Your task to perform on an android device: refresh tabs in the chrome app Image 0: 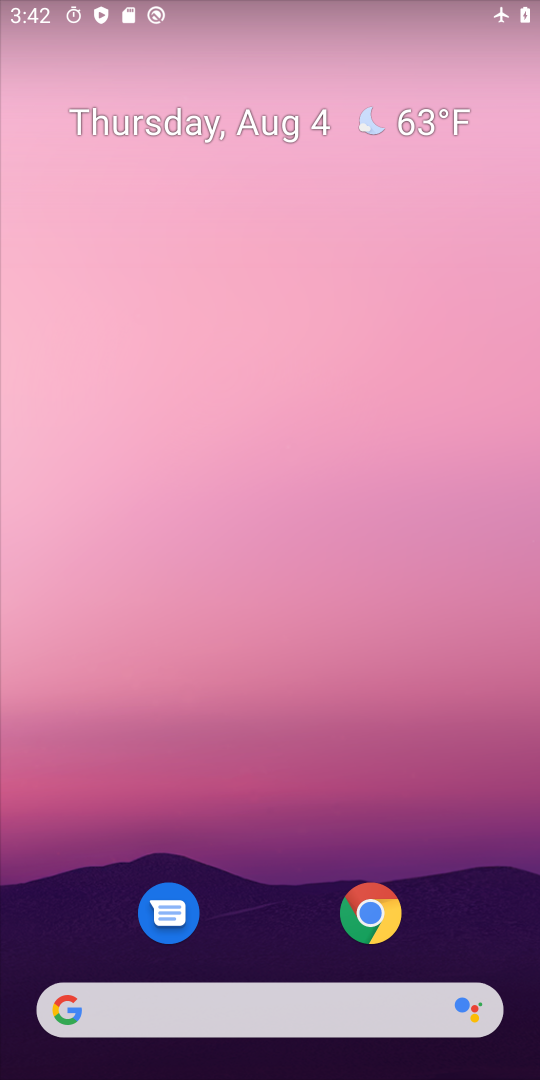
Step 0: drag from (258, 1002) to (267, 140)
Your task to perform on an android device: refresh tabs in the chrome app Image 1: 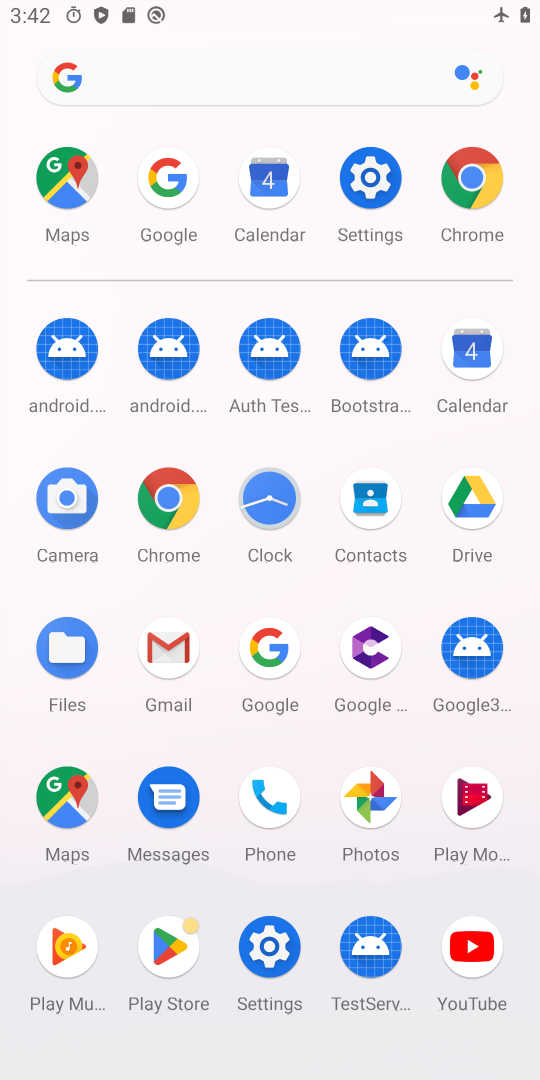
Step 1: click (361, 170)
Your task to perform on an android device: refresh tabs in the chrome app Image 2: 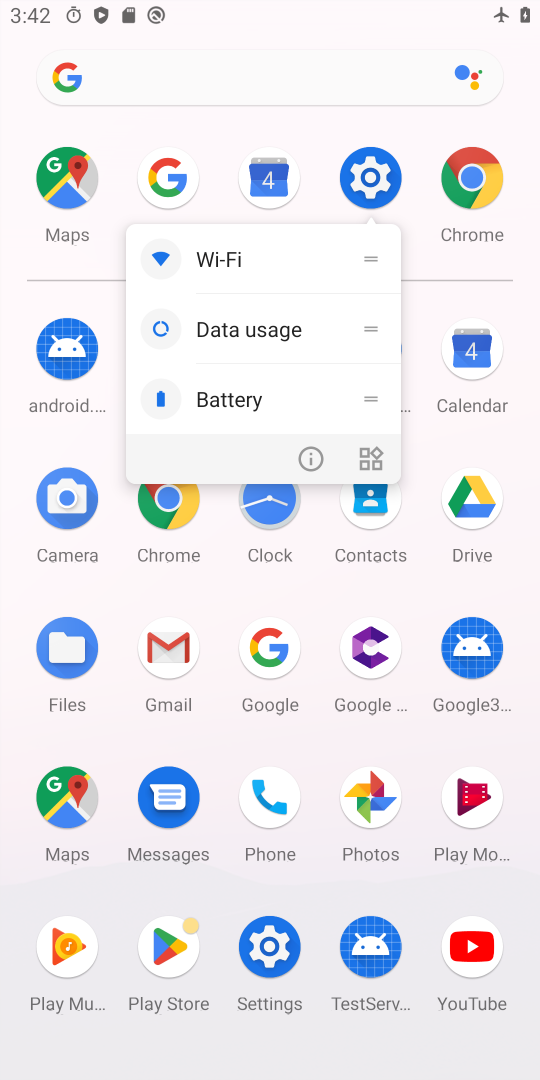
Step 2: click (380, 169)
Your task to perform on an android device: refresh tabs in the chrome app Image 3: 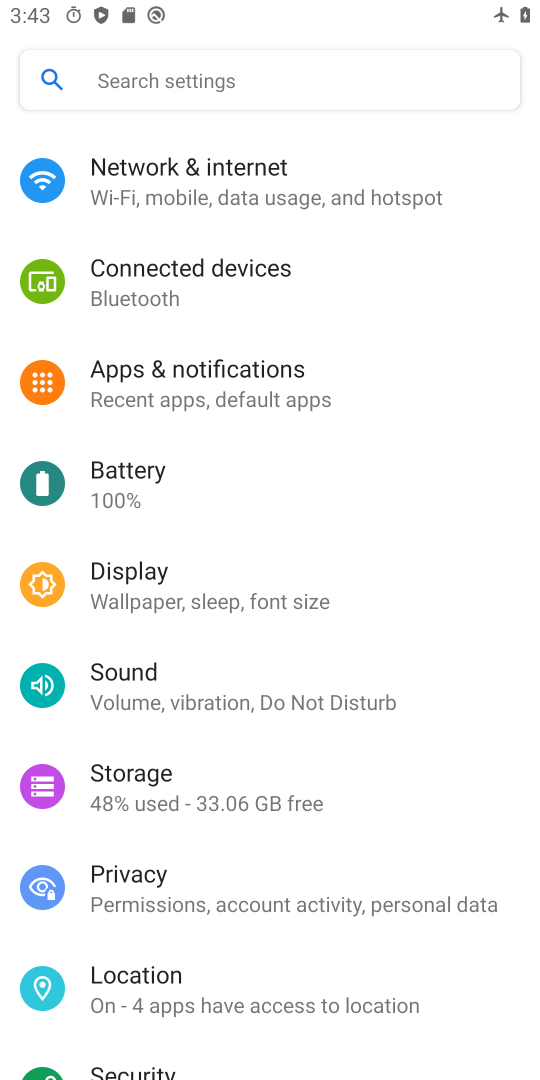
Step 3: click (240, 188)
Your task to perform on an android device: refresh tabs in the chrome app Image 4: 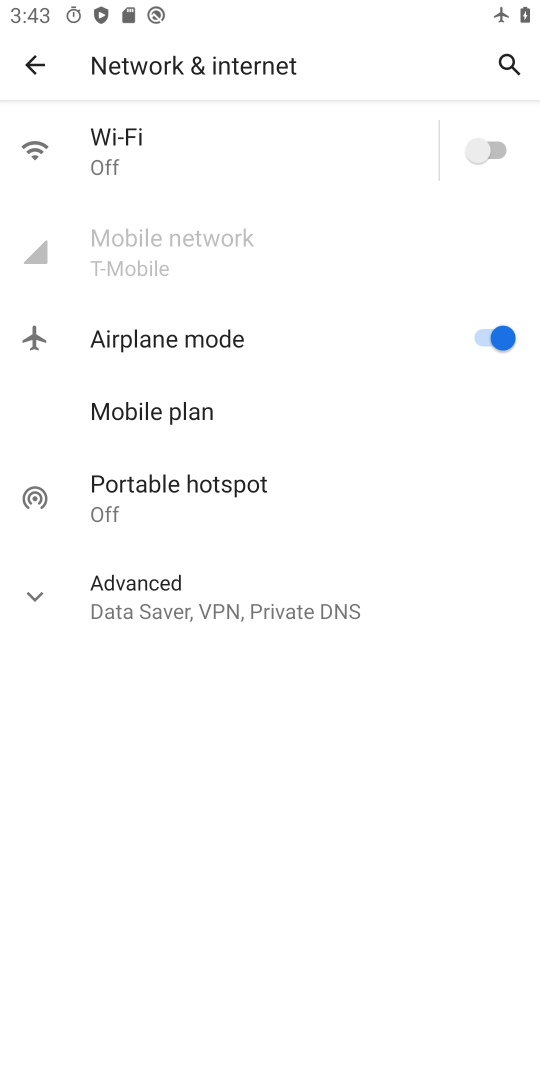
Step 4: click (490, 332)
Your task to perform on an android device: refresh tabs in the chrome app Image 5: 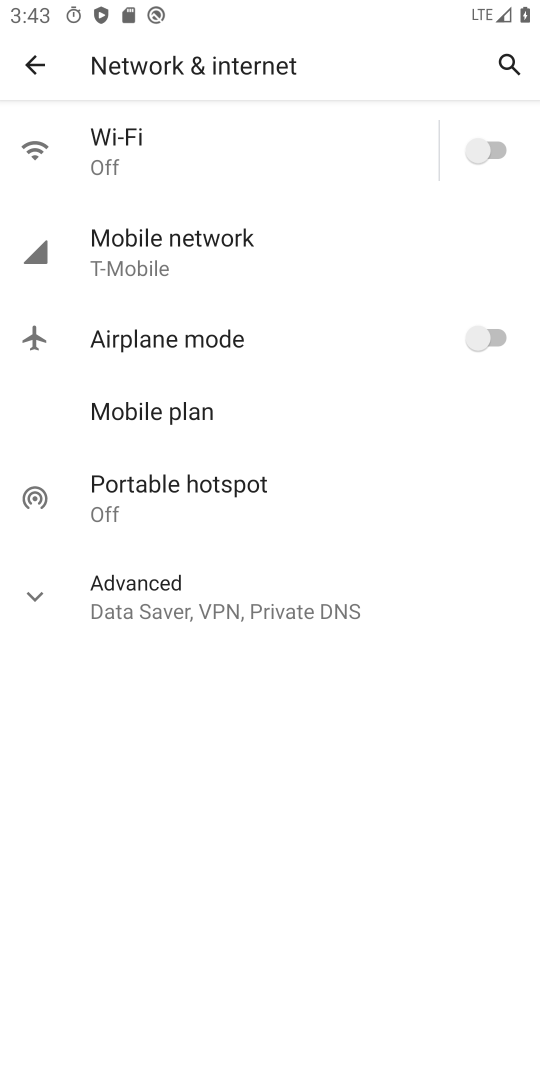
Step 5: press home button
Your task to perform on an android device: refresh tabs in the chrome app Image 6: 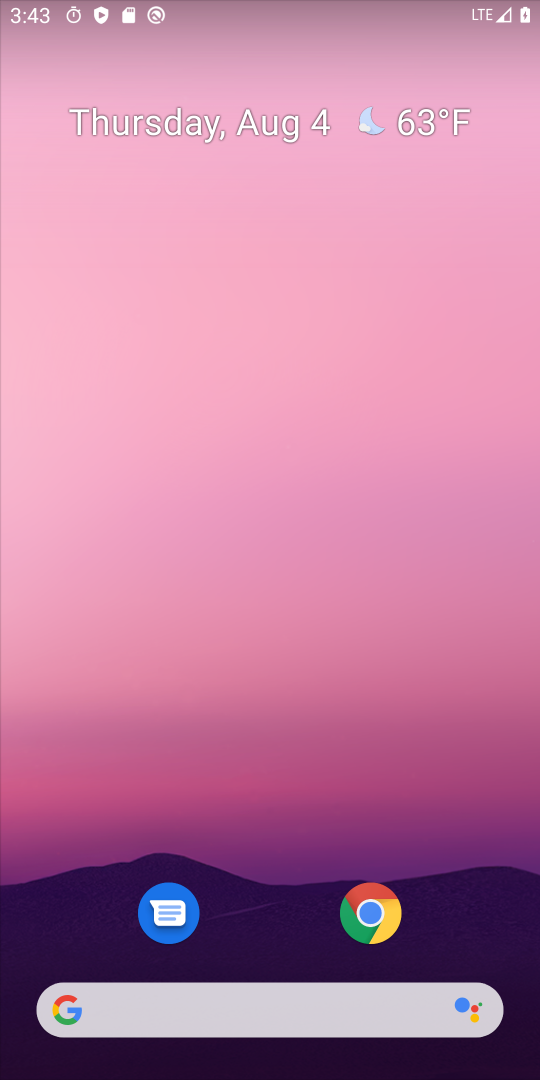
Step 6: drag from (250, 988) to (273, 40)
Your task to perform on an android device: refresh tabs in the chrome app Image 7: 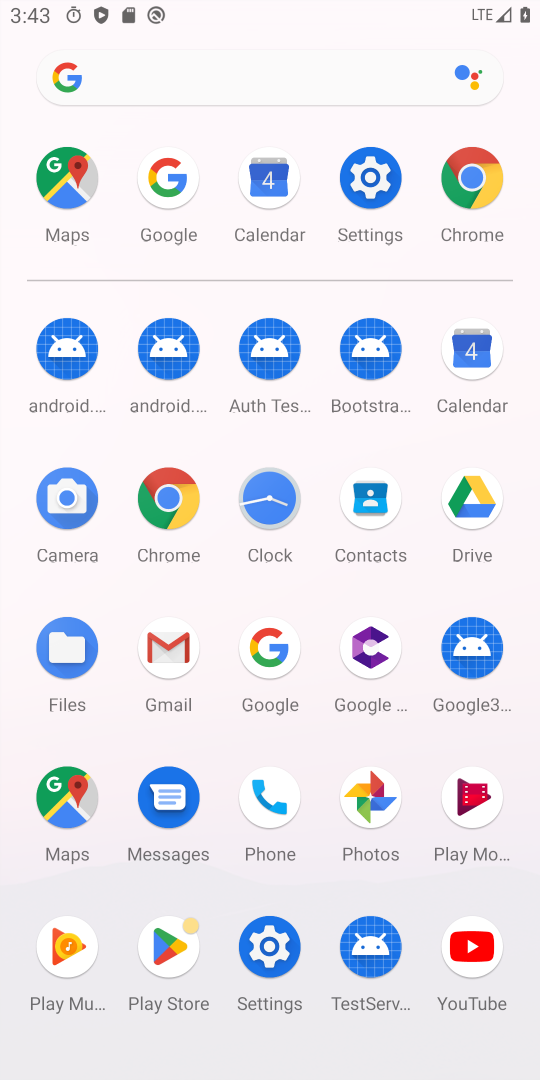
Step 7: click (160, 504)
Your task to perform on an android device: refresh tabs in the chrome app Image 8: 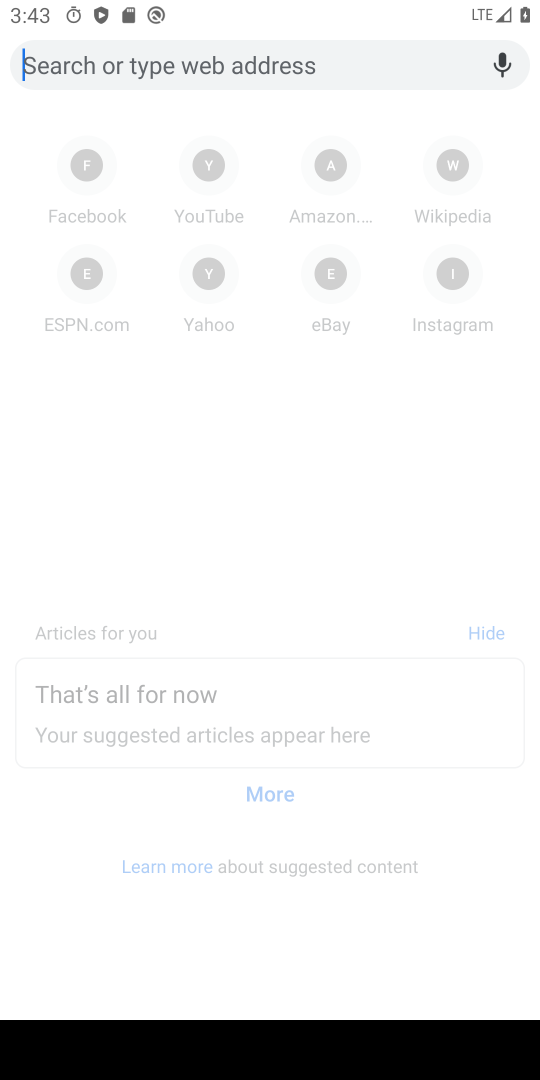
Step 8: press back button
Your task to perform on an android device: refresh tabs in the chrome app Image 9: 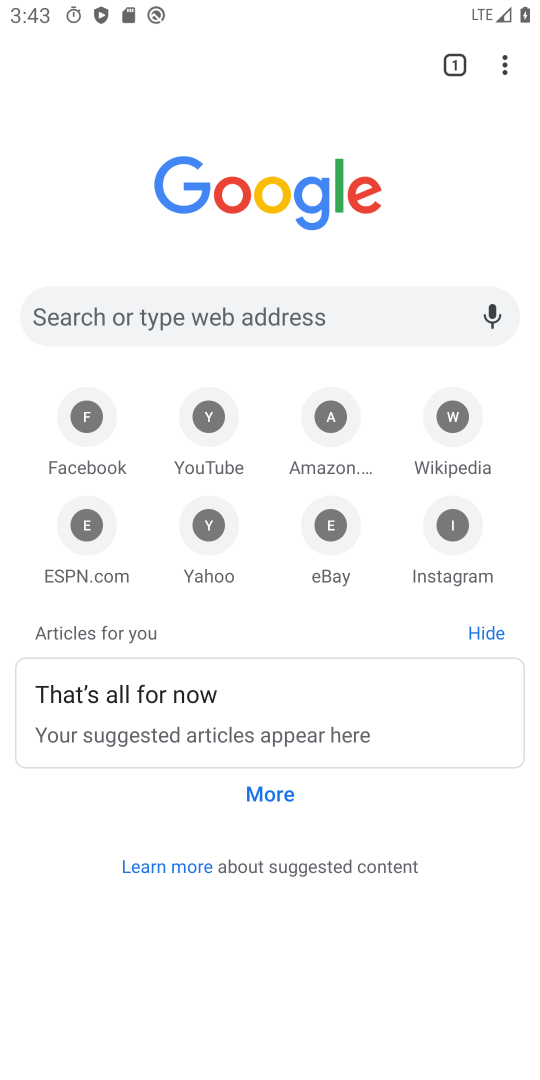
Step 9: click (501, 57)
Your task to perform on an android device: refresh tabs in the chrome app Image 10: 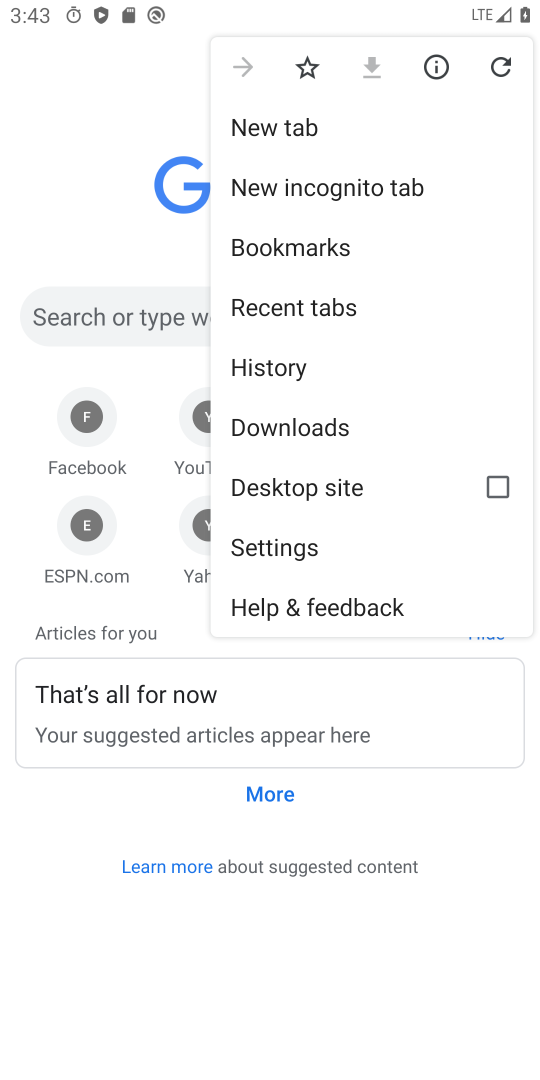
Step 10: click (501, 57)
Your task to perform on an android device: refresh tabs in the chrome app Image 11: 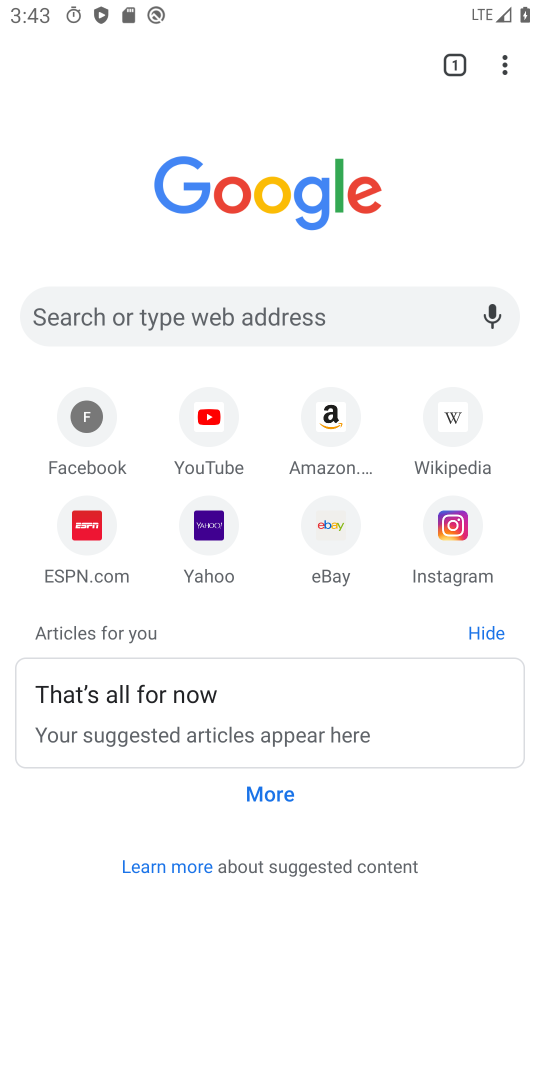
Step 11: task complete